Your task to perform on an android device: Open calendar and show me the first week of next month Image 0: 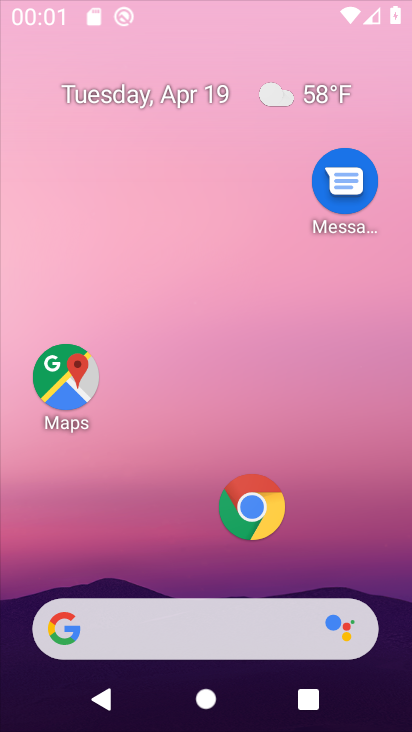
Step 0: click (263, 500)
Your task to perform on an android device: Open calendar and show me the first week of next month Image 1: 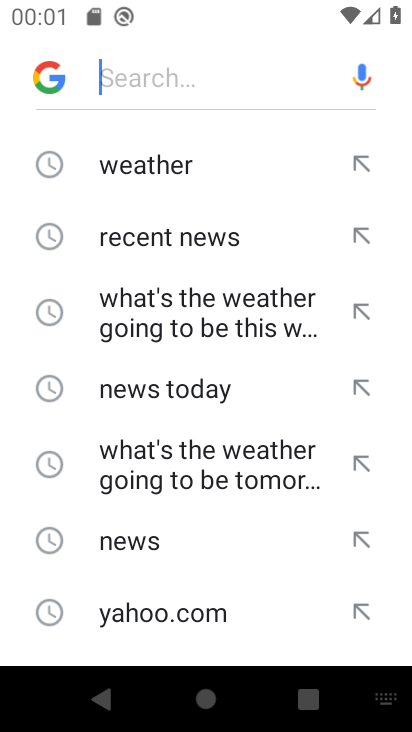
Step 1: click (207, 695)
Your task to perform on an android device: Open calendar and show me the first week of next month Image 2: 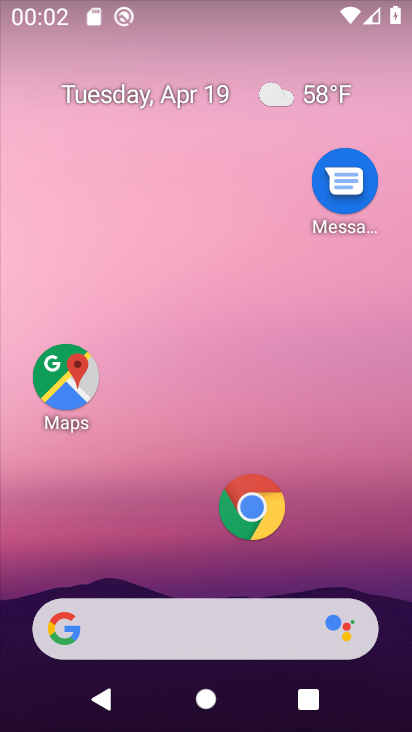
Step 2: drag from (163, 512) to (238, 102)
Your task to perform on an android device: Open calendar and show me the first week of next month Image 3: 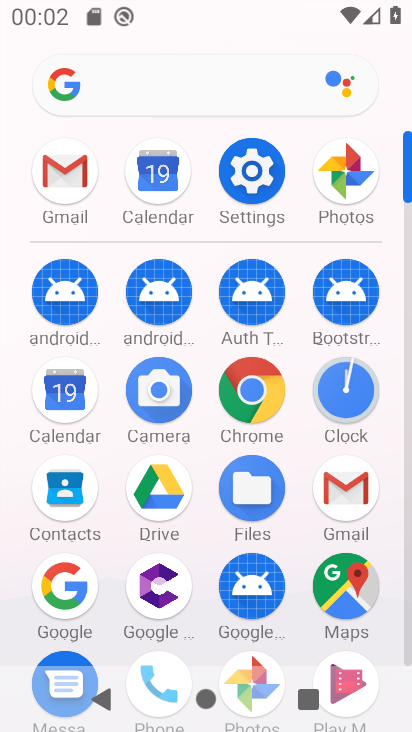
Step 3: click (71, 399)
Your task to perform on an android device: Open calendar and show me the first week of next month Image 4: 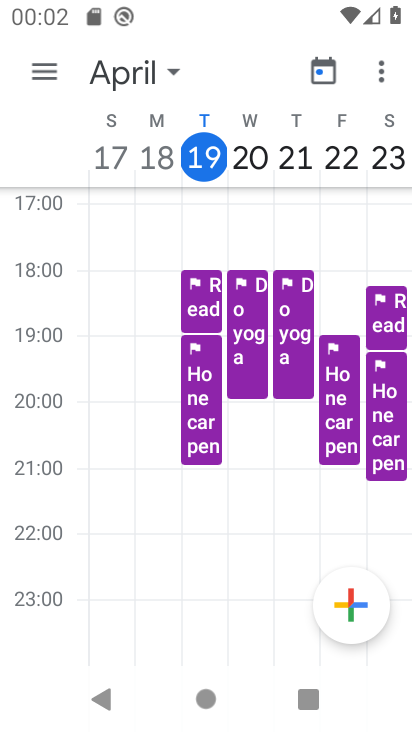
Step 4: task complete